Your task to perform on an android device: check the backup settings in the google photos Image 0: 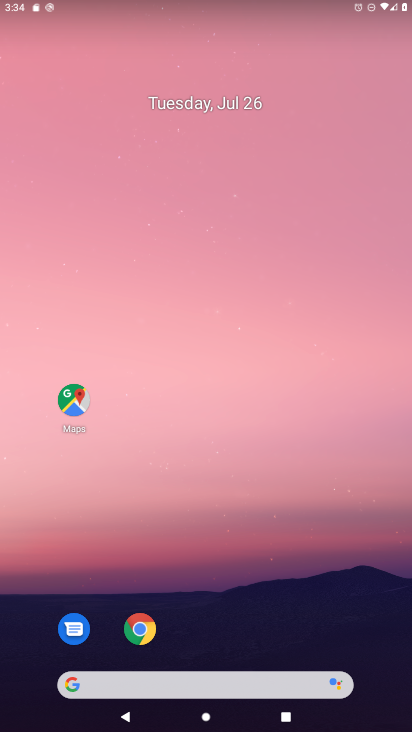
Step 0: drag from (212, 635) to (189, 245)
Your task to perform on an android device: check the backup settings in the google photos Image 1: 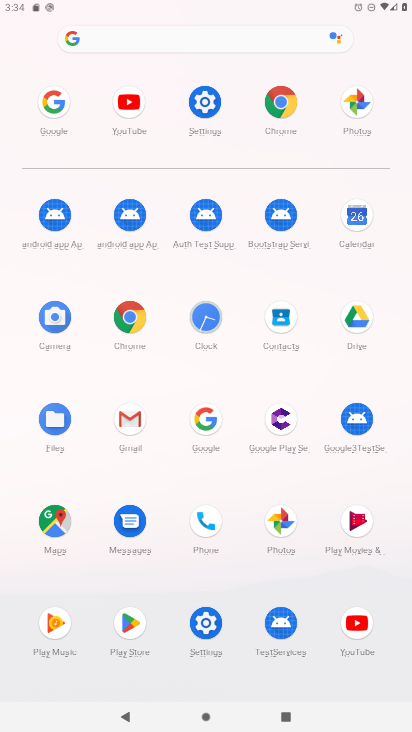
Step 1: click (351, 123)
Your task to perform on an android device: check the backup settings in the google photos Image 2: 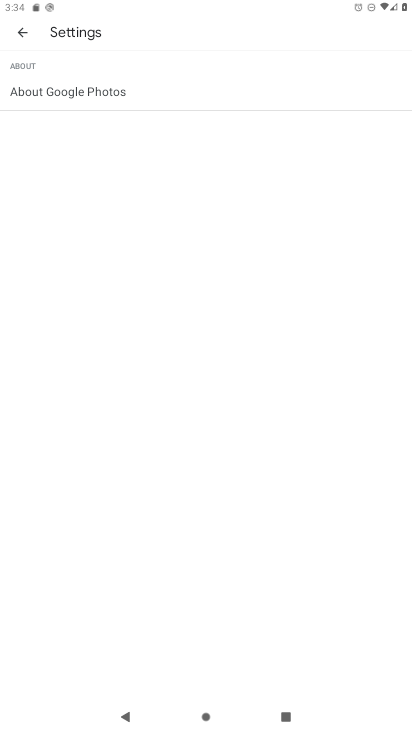
Step 2: click (16, 30)
Your task to perform on an android device: check the backup settings in the google photos Image 3: 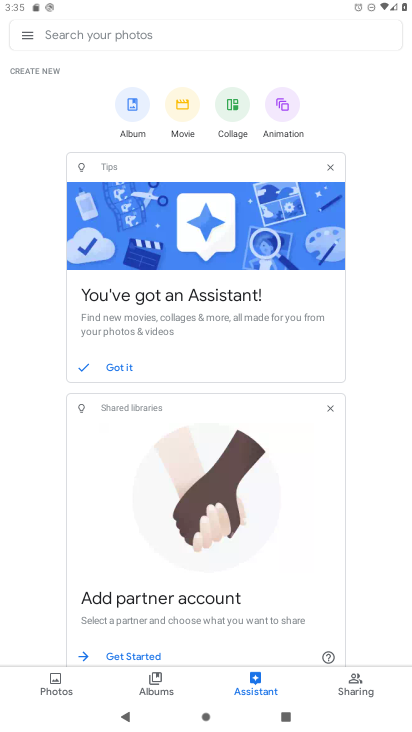
Step 3: click (28, 34)
Your task to perform on an android device: check the backup settings in the google photos Image 4: 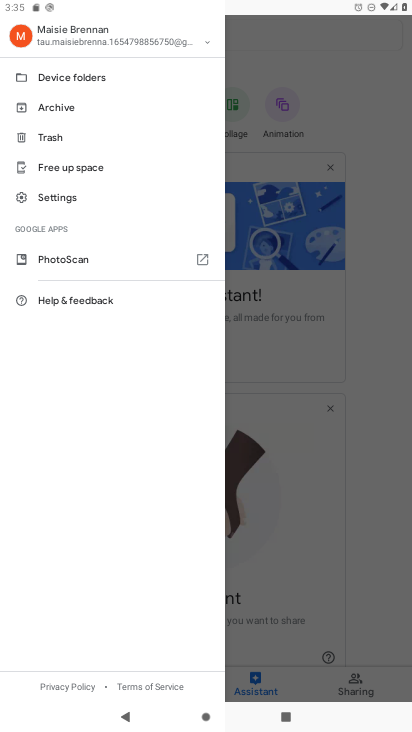
Step 4: click (59, 205)
Your task to perform on an android device: check the backup settings in the google photos Image 5: 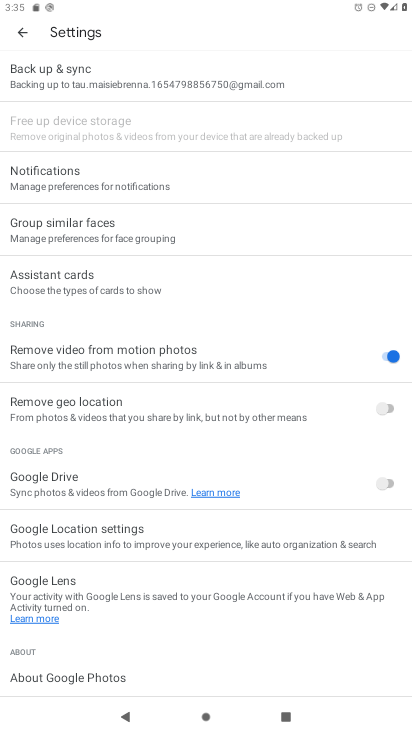
Step 5: click (109, 91)
Your task to perform on an android device: check the backup settings in the google photos Image 6: 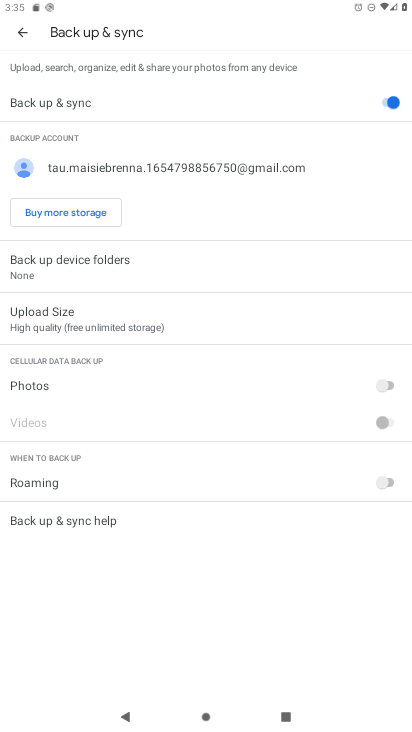
Step 6: task complete